Your task to perform on an android device: toggle priority inbox in the gmail app Image 0: 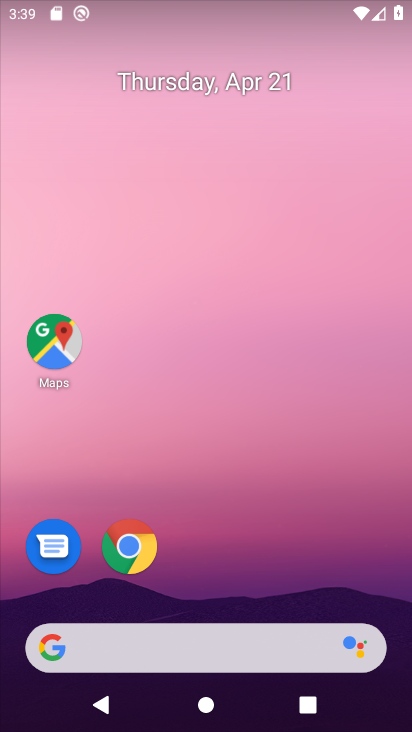
Step 0: click (290, 159)
Your task to perform on an android device: toggle priority inbox in the gmail app Image 1: 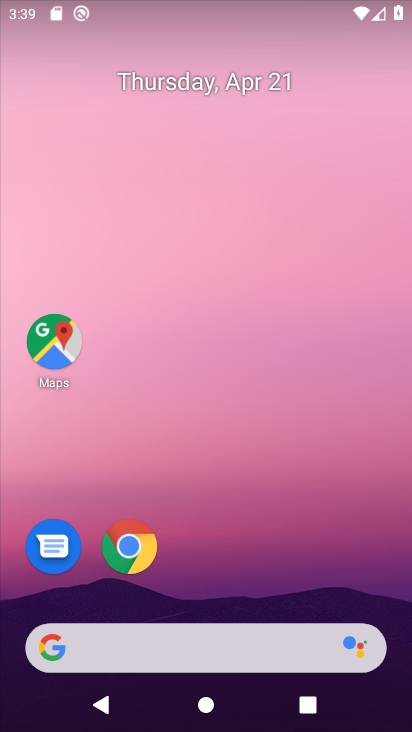
Step 1: drag from (305, 603) to (333, 139)
Your task to perform on an android device: toggle priority inbox in the gmail app Image 2: 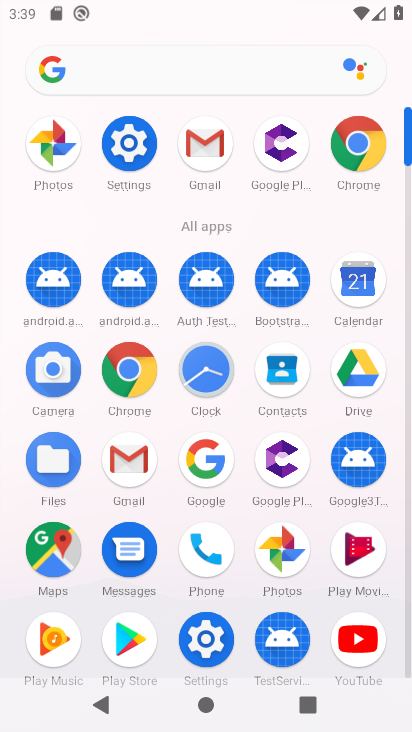
Step 2: click (135, 449)
Your task to perform on an android device: toggle priority inbox in the gmail app Image 3: 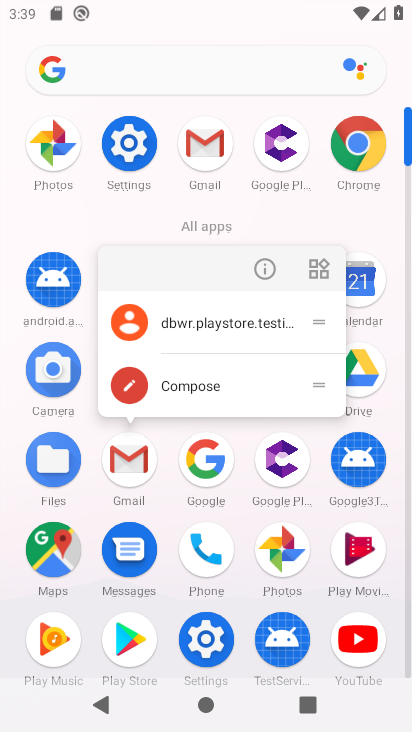
Step 3: click (134, 453)
Your task to perform on an android device: toggle priority inbox in the gmail app Image 4: 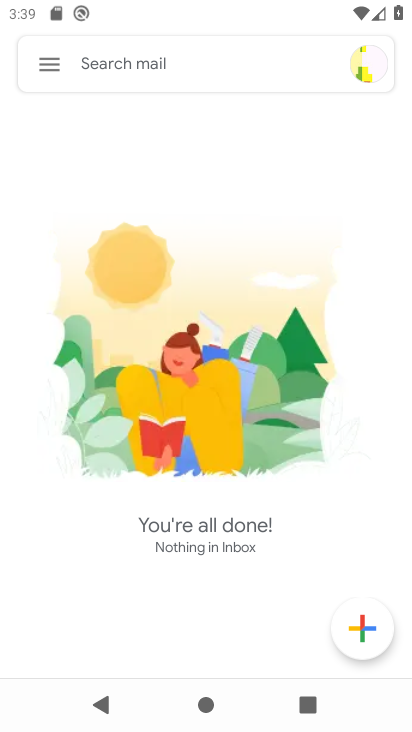
Step 4: click (55, 75)
Your task to perform on an android device: toggle priority inbox in the gmail app Image 5: 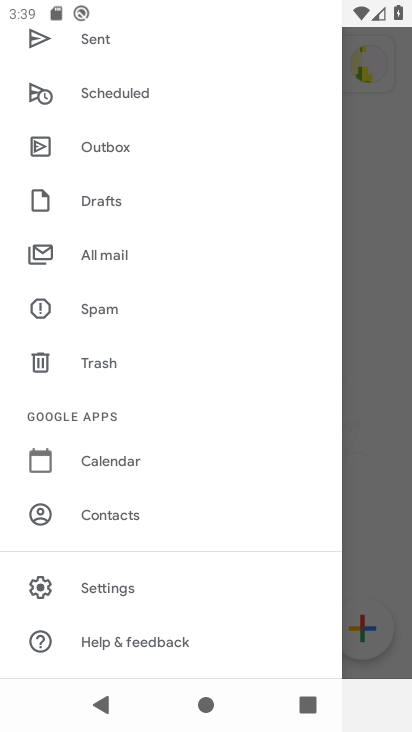
Step 5: click (123, 606)
Your task to perform on an android device: toggle priority inbox in the gmail app Image 6: 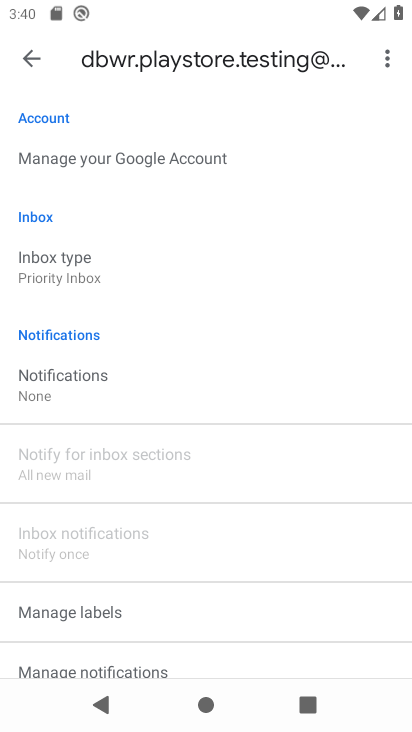
Step 6: click (60, 293)
Your task to perform on an android device: toggle priority inbox in the gmail app Image 7: 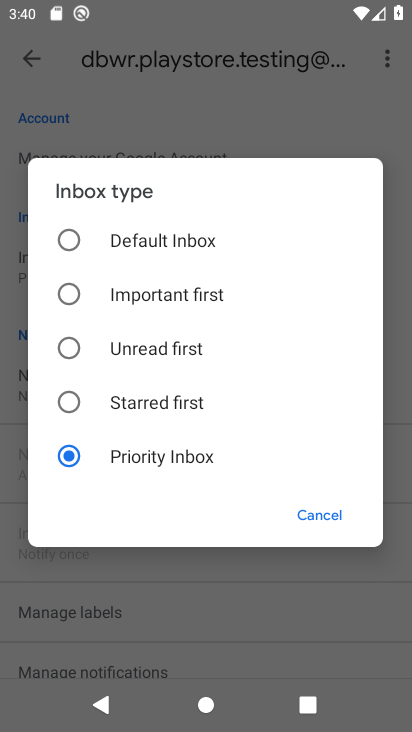
Step 7: task complete